Your task to perform on an android device: What's the weather today? Image 0: 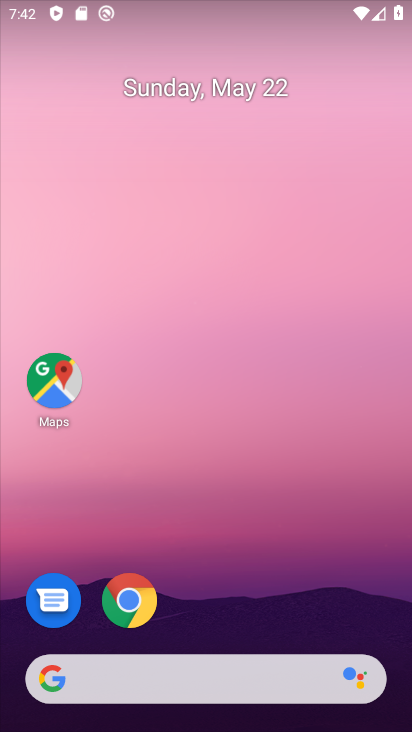
Step 0: drag from (190, 587) to (245, 155)
Your task to perform on an android device: What's the weather today? Image 1: 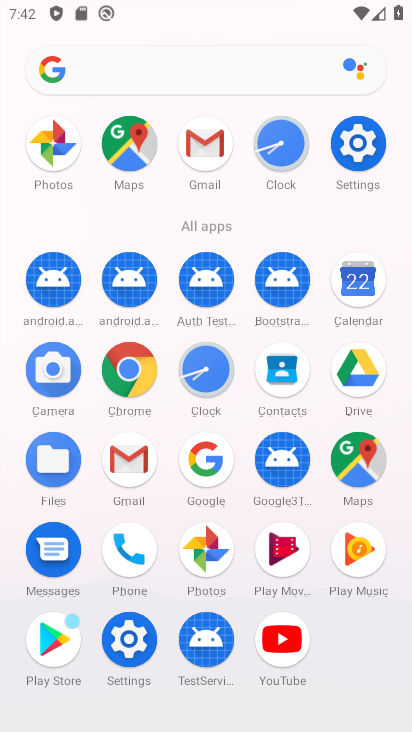
Step 1: click (225, 471)
Your task to perform on an android device: What's the weather today? Image 2: 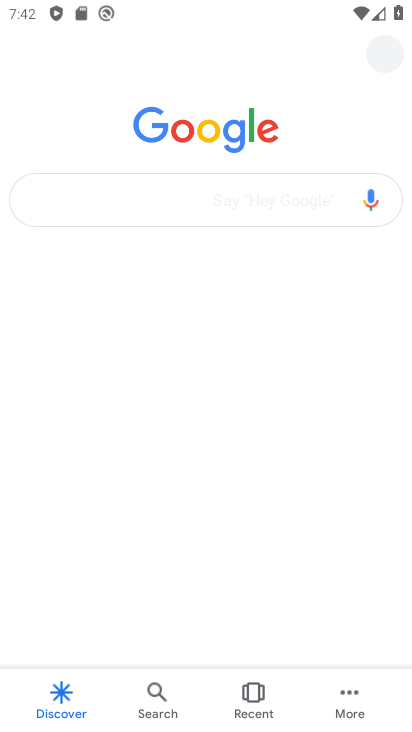
Step 2: click (170, 201)
Your task to perform on an android device: What's the weather today? Image 3: 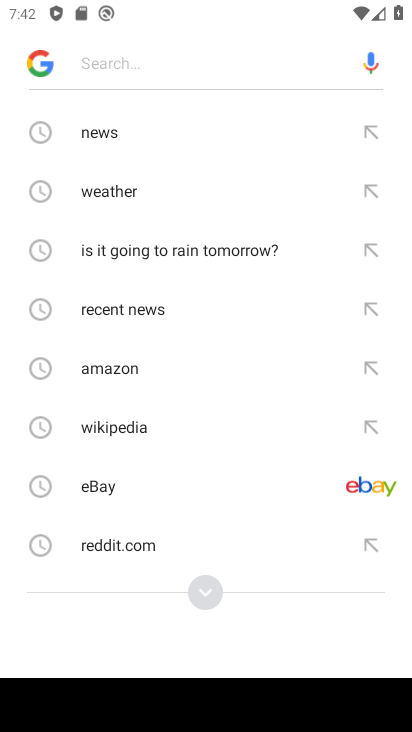
Step 3: click (124, 194)
Your task to perform on an android device: What's the weather today? Image 4: 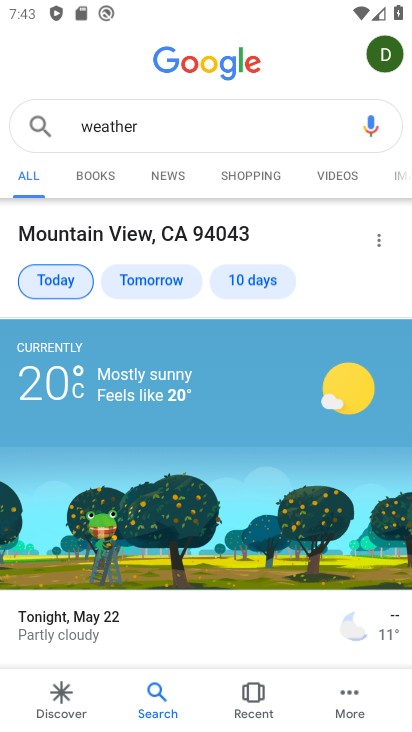
Step 4: task complete